Your task to perform on an android device: Open my contact list Image 0: 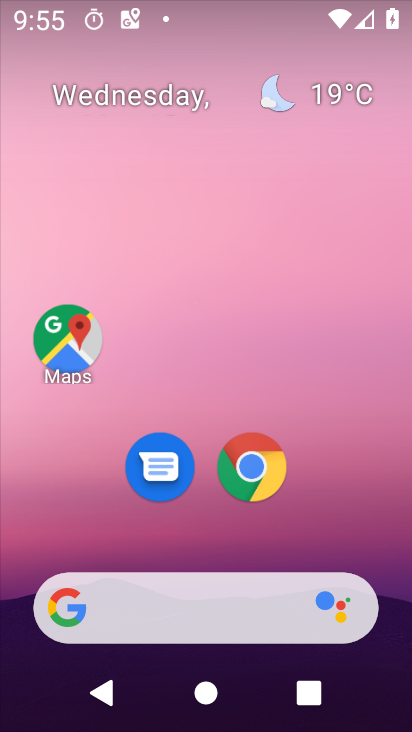
Step 0: press home button
Your task to perform on an android device: Open my contact list Image 1: 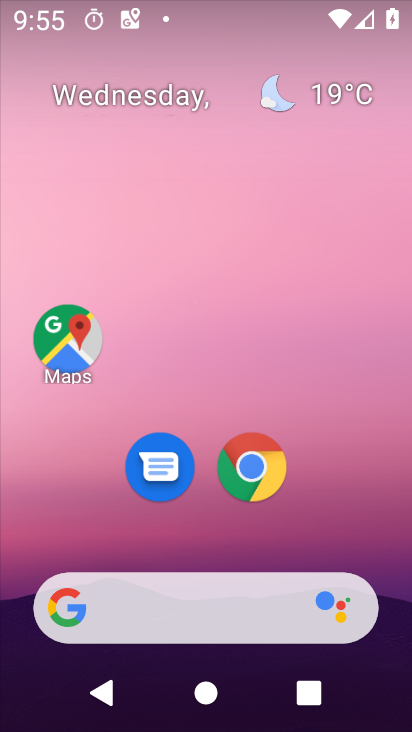
Step 1: drag from (310, 467) to (180, 9)
Your task to perform on an android device: Open my contact list Image 2: 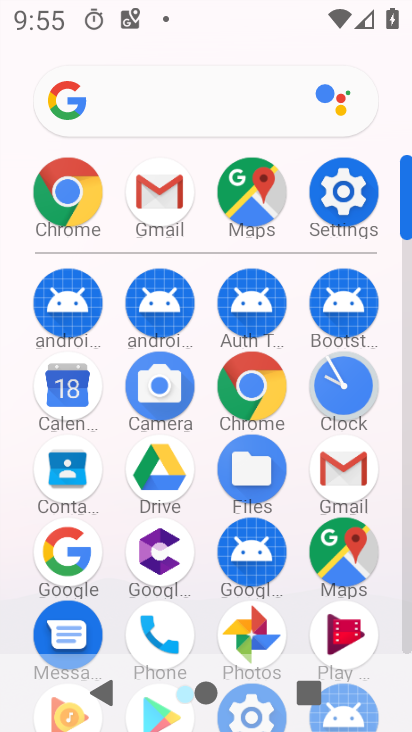
Step 2: click (69, 472)
Your task to perform on an android device: Open my contact list Image 3: 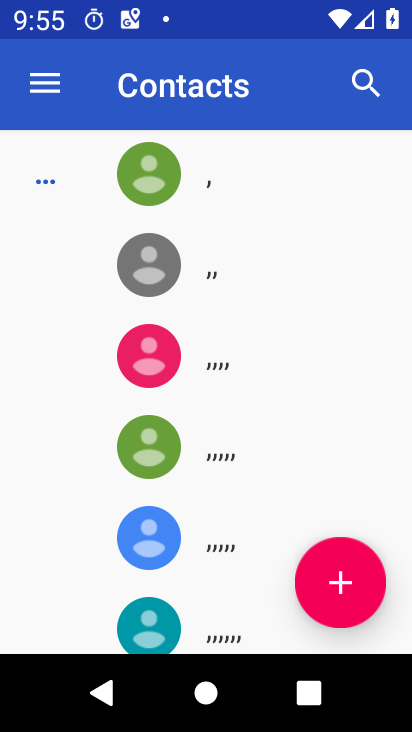
Step 3: task complete